Your task to perform on an android device: Go to calendar. Show me events next week Image 0: 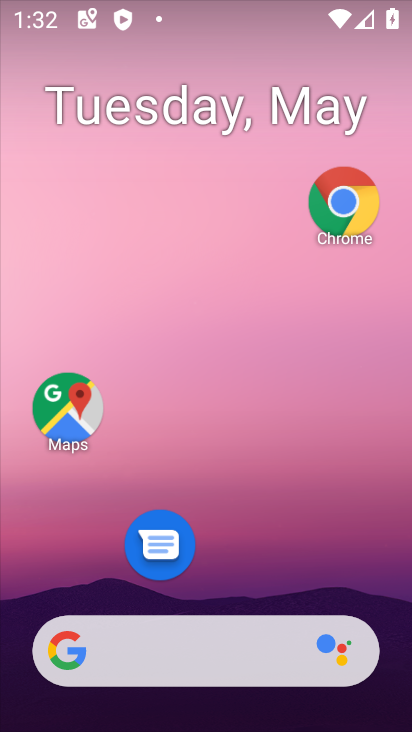
Step 0: click (171, 132)
Your task to perform on an android device: Go to calendar. Show me events next week Image 1: 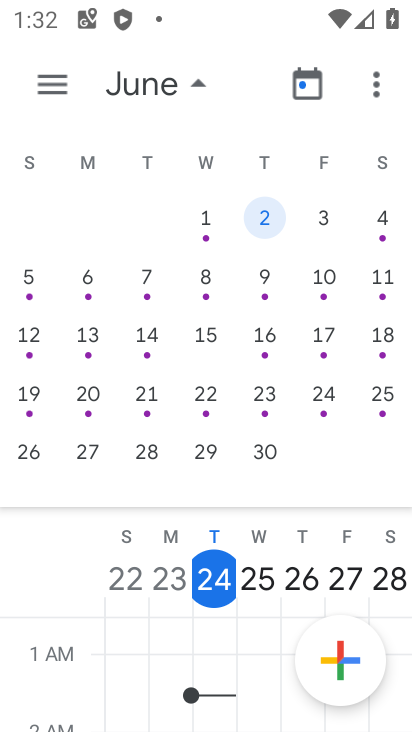
Step 1: click (132, 83)
Your task to perform on an android device: Go to calendar. Show me events next week Image 2: 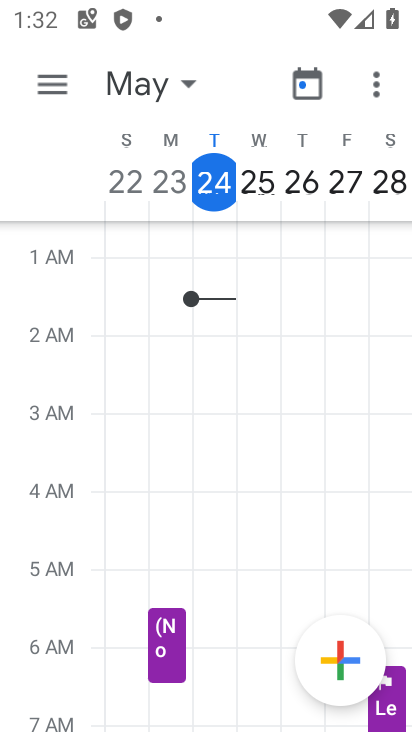
Step 2: task complete